Your task to perform on an android device: find which apps use the phone's location Image 0: 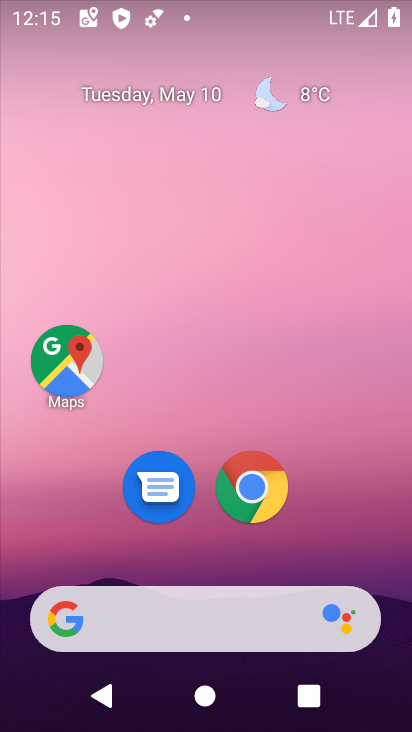
Step 0: drag from (197, 558) to (281, 76)
Your task to perform on an android device: find which apps use the phone's location Image 1: 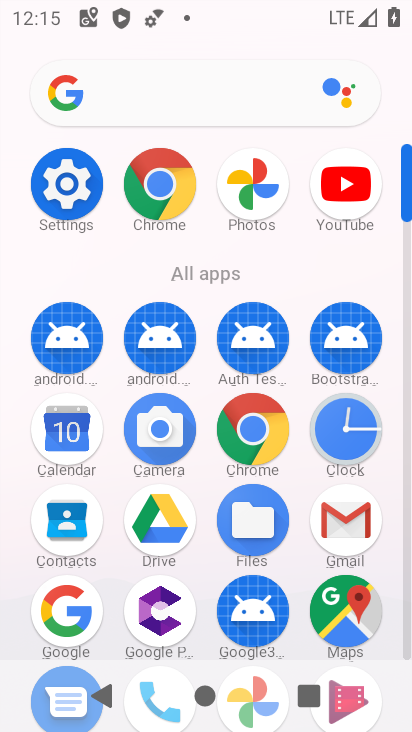
Step 1: click (68, 184)
Your task to perform on an android device: find which apps use the phone's location Image 2: 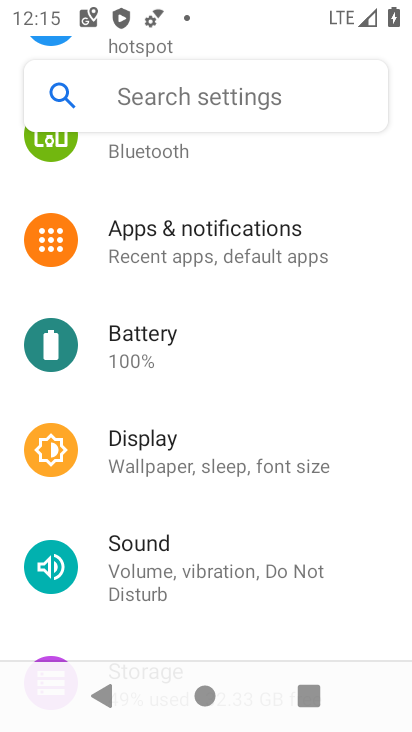
Step 2: drag from (185, 609) to (173, 139)
Your task to perform on an android device: find which apps use the phone's location Image 3: 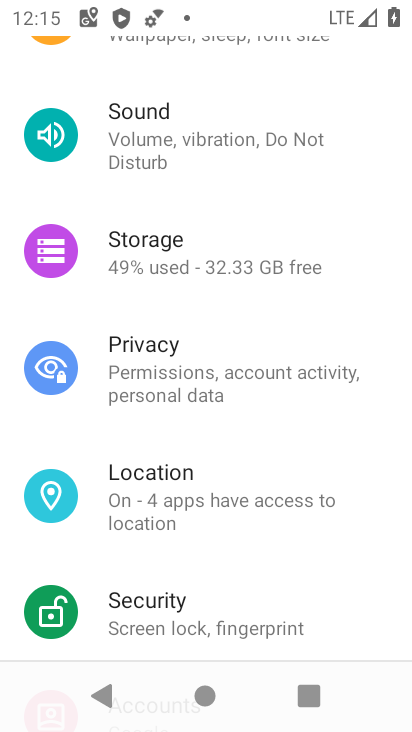
Step 3: click (200, 476)
Your task to perform on an android device: find which apps use the phone's location Image 4: 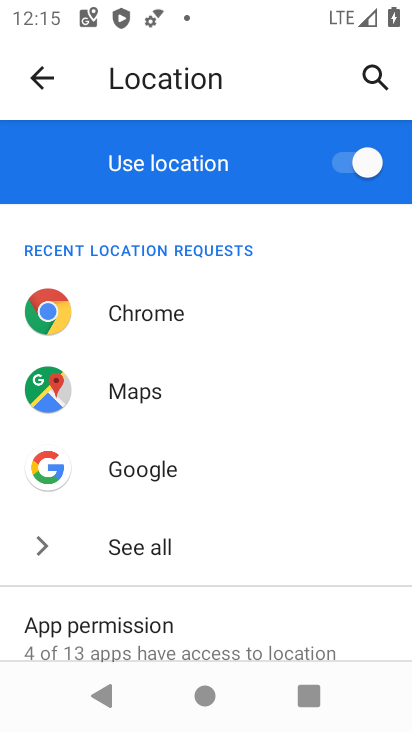
Step 4: click (193, 622)
Your task to perform on an android device: find which apps use the phone's location Image 5: 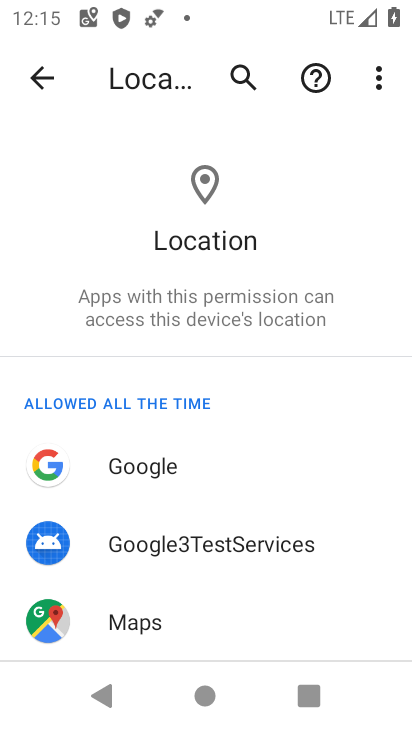
Step 5: task complete